Your task to perform on an android device: change the clock display to analog Image 0: 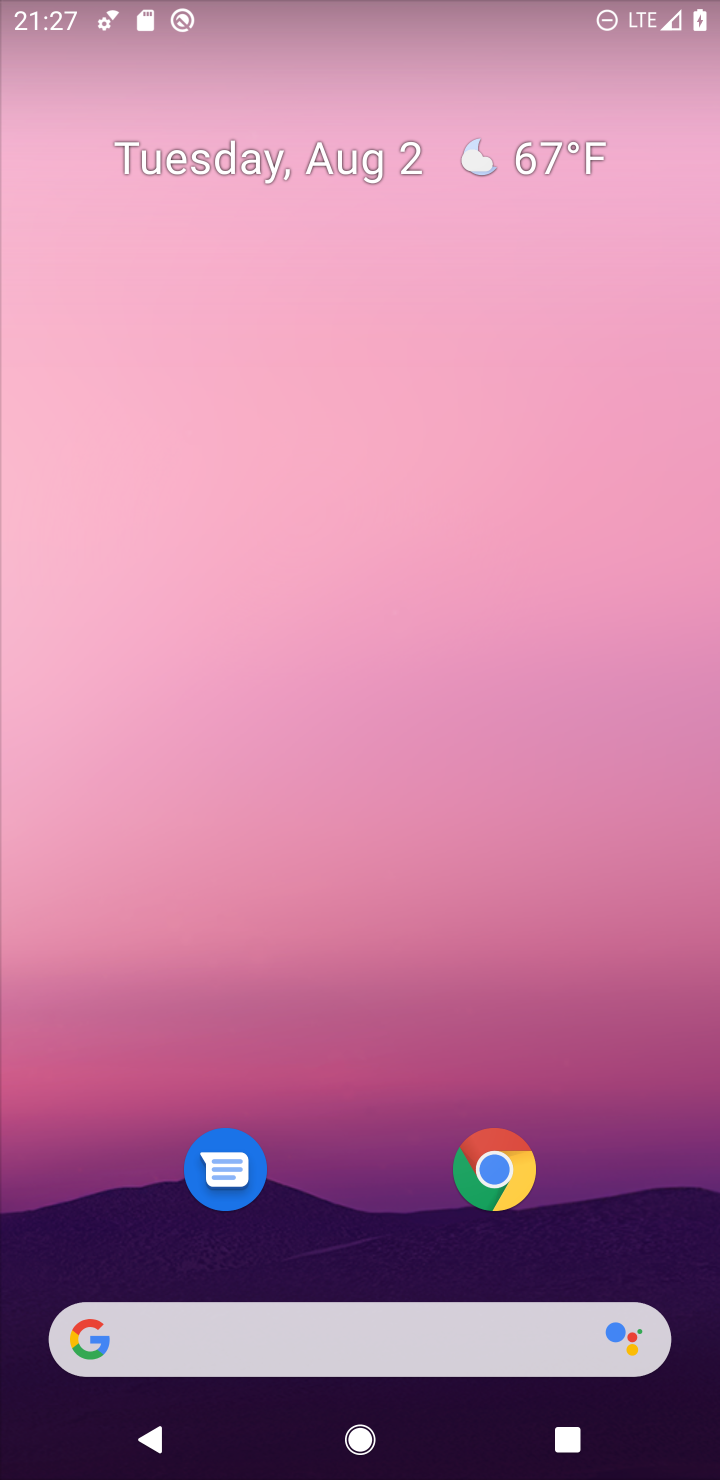
Step 0: drag from (378, 1120) to (387, 280)
Your task to perform on an android device: change the clock display to analog Image 1: 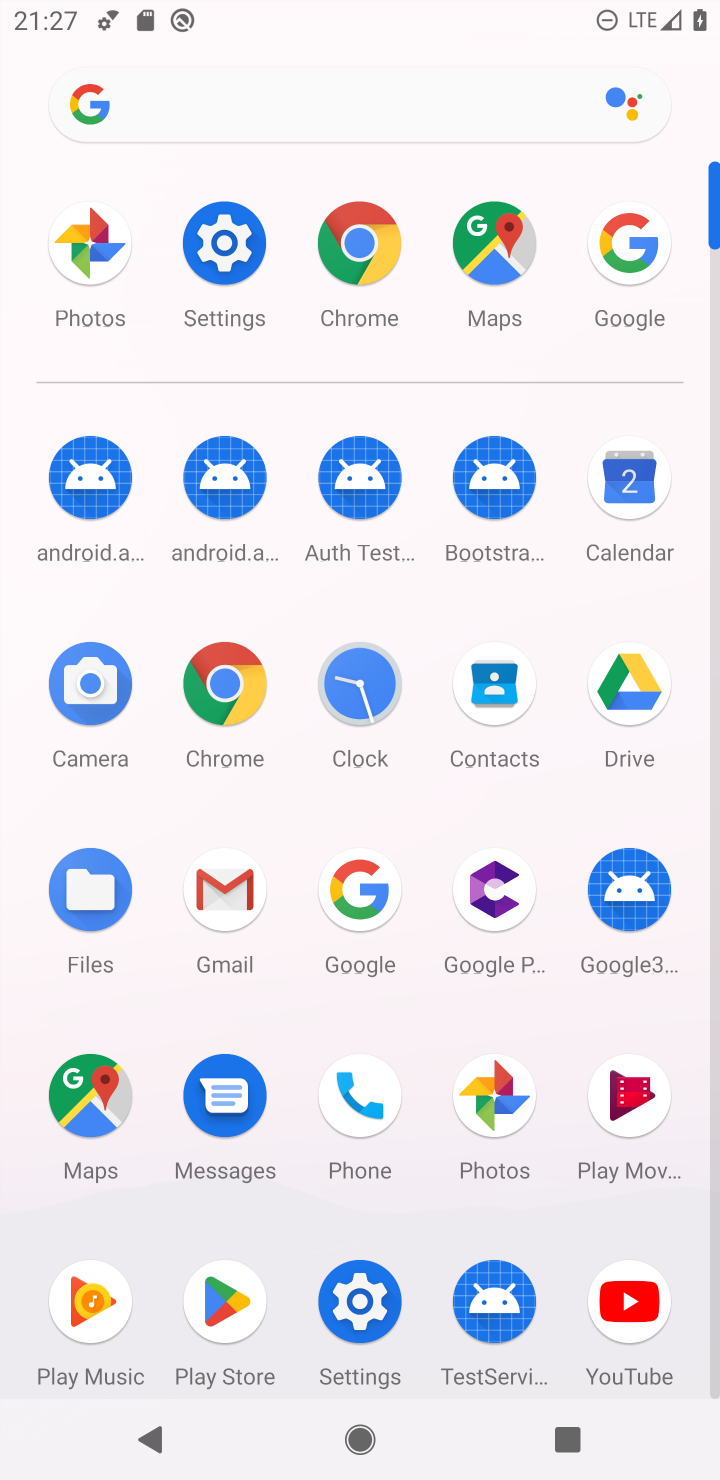
Step 1: click (363, 686)
Your task to perform on an android device: change the clock display to analog Image 2: 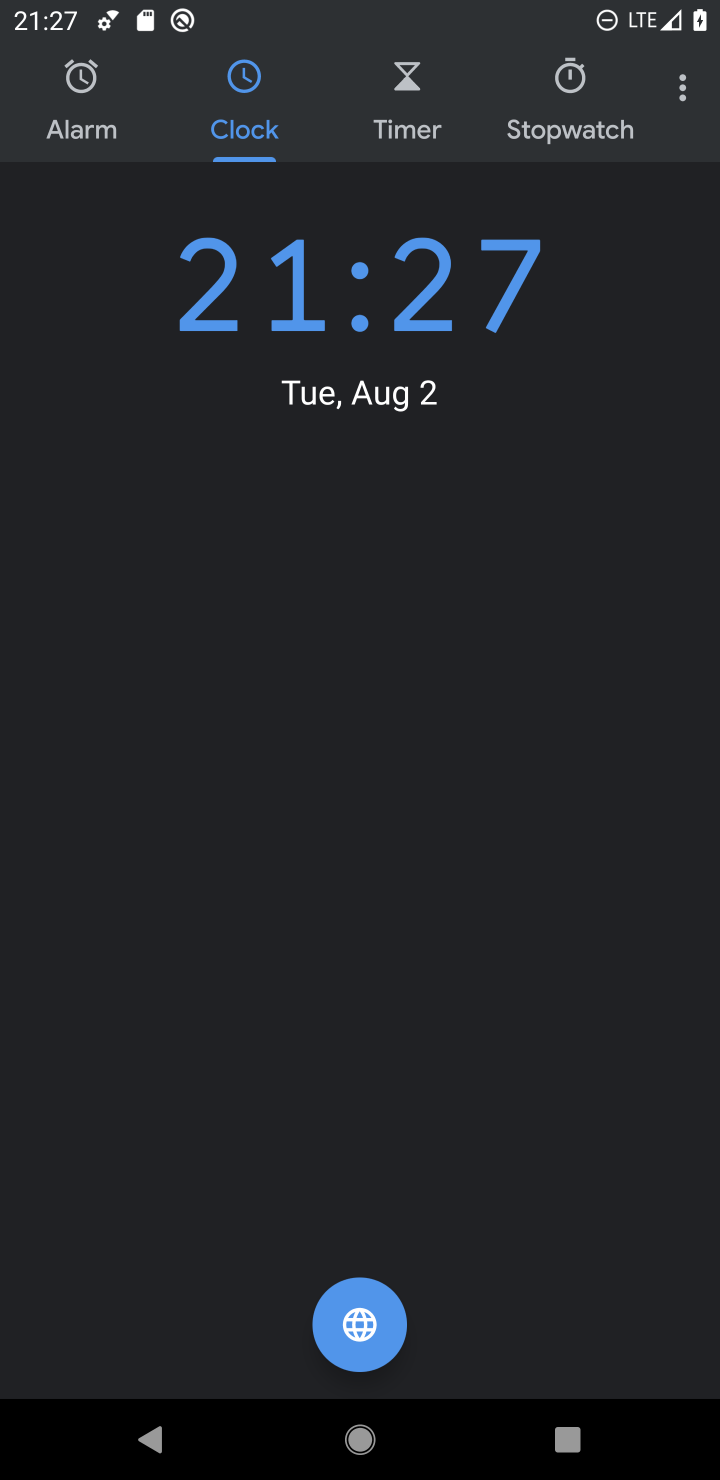
Step 2: click (684, 100)
Your task to perform on an android device: change the clock display to analog Image 3: 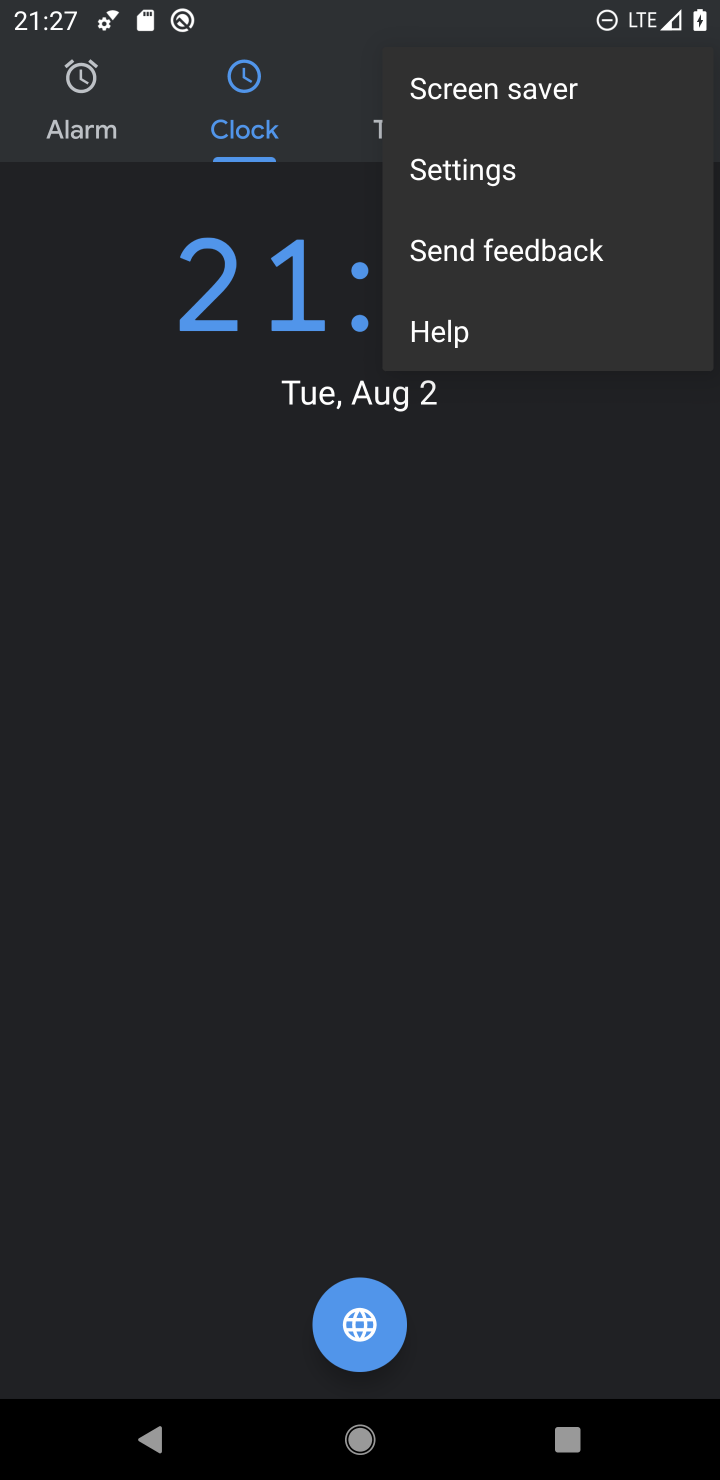
Step 3: click (456, 170)
Your task to perform on an android device: change the clock display to analog Image 4: 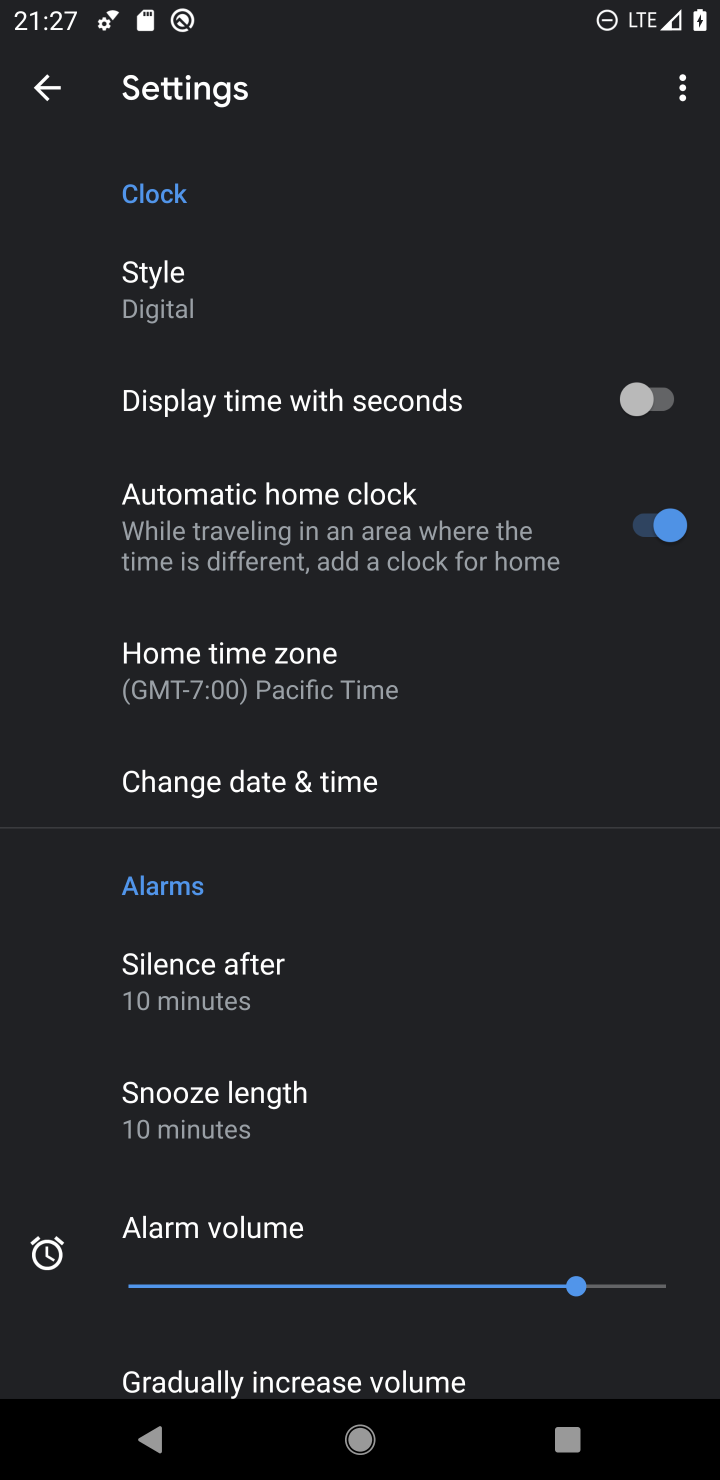
Step 4: click (175, 295)
Your task to perform on an android device: change the clock display to analog Image 5: 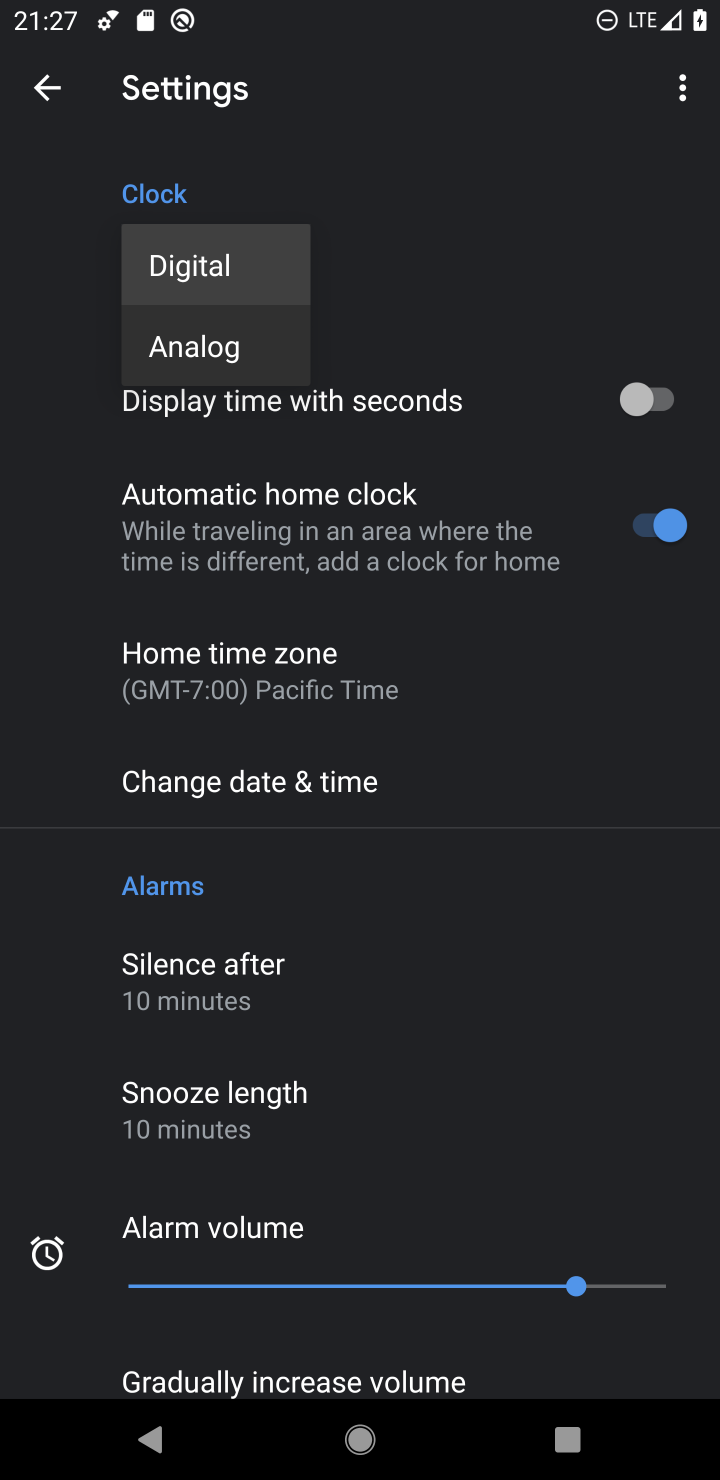
Step 5: click (180, 342)
Your task to perform on an android device: change the clock display to analog Image 6: 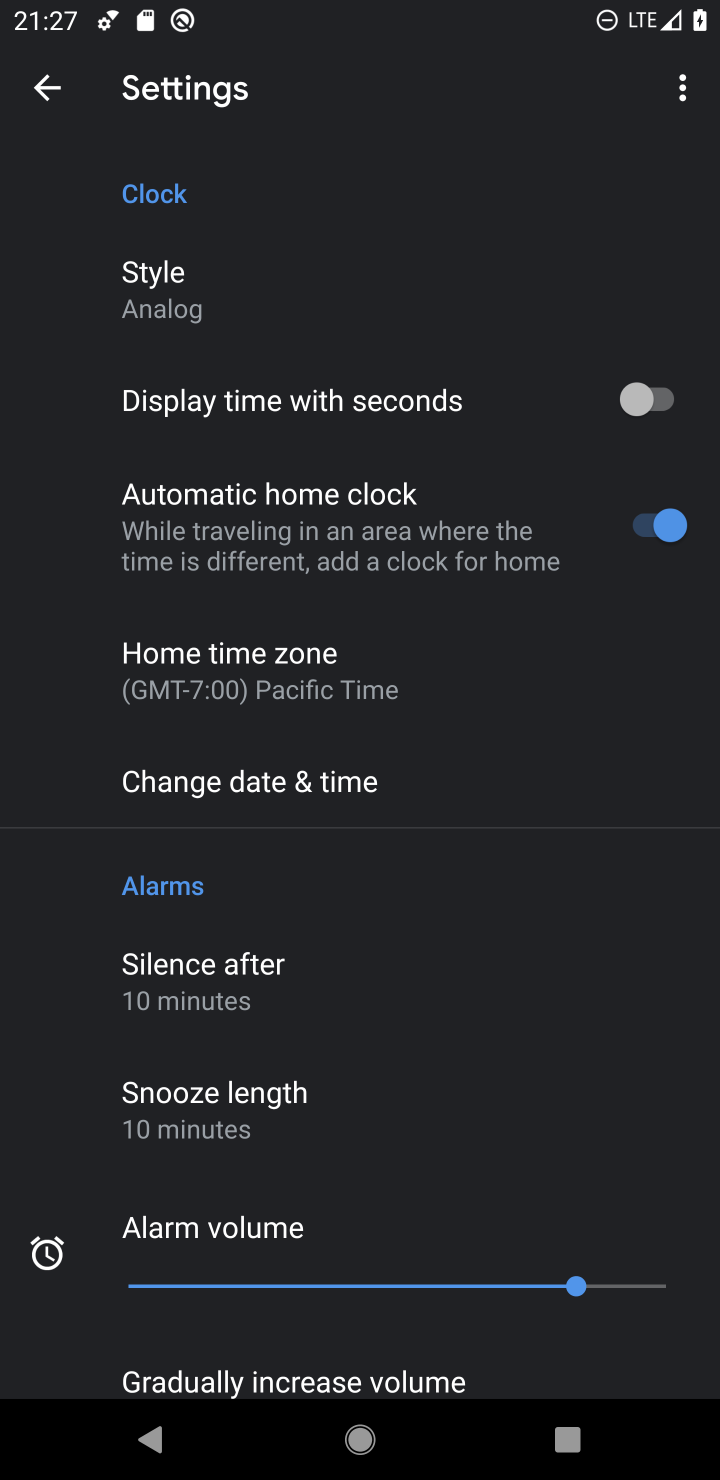
Step 6: task complete